Your task to perform on an android device: turn off javascript in the chrome app Image 0: 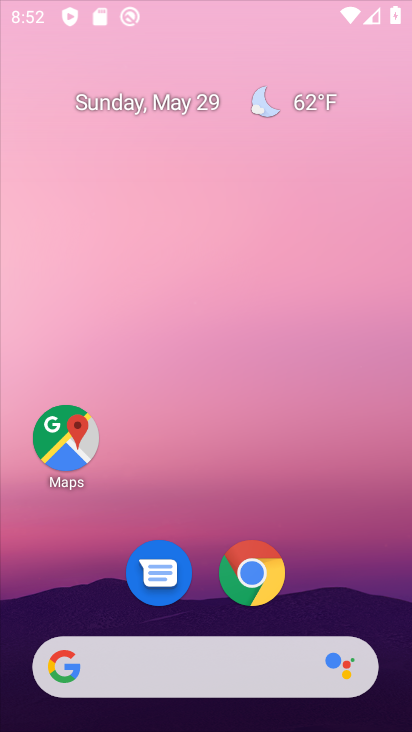
Step 0: press home button
Your task to perform on an android device: turn off javascript in the chrome app Image 1: 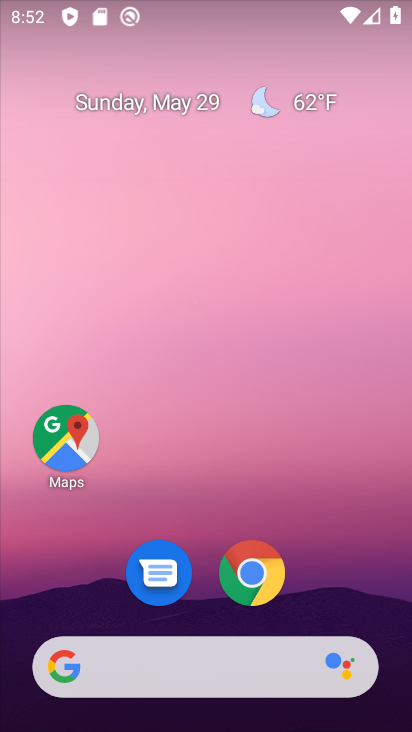
Step 1: click (253, 577)
Your task to perform on an android device: turn off javascript in the chrome app Image 2: 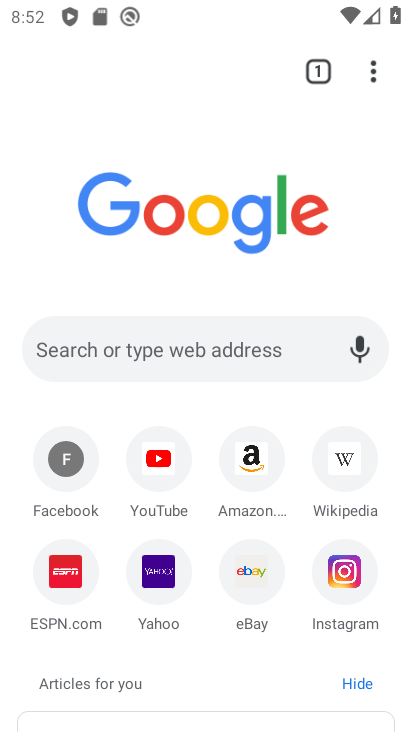
Step 2: drag from (376, 74) to (127, 604)
Your task to perform on an android device: turn off javascript in the chrome app Image 3: 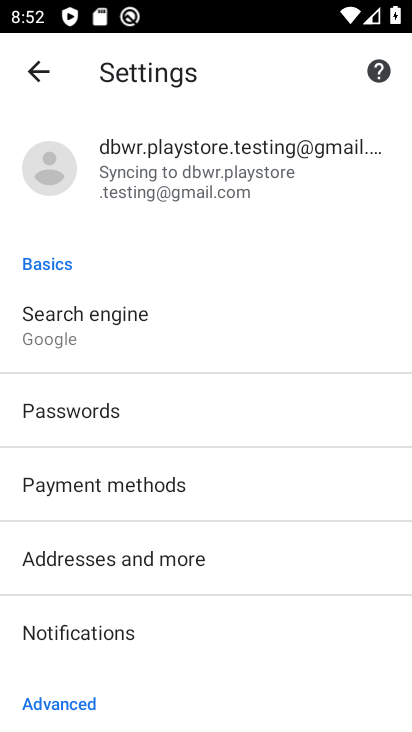
Step 3: drag from (277, 652) to (277, 238)
Your task to perform on an android device: turn off javascript in the chrome app Image 4: 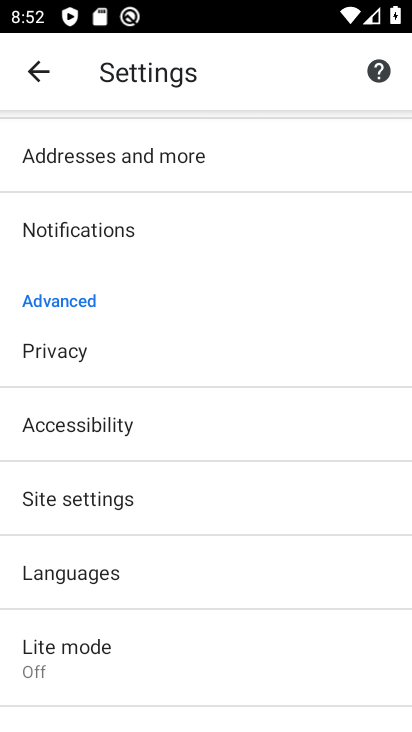
Step 4: click (78, 502)
Your task to perform on an android device: turn off javascript in the chrome app Image 5: 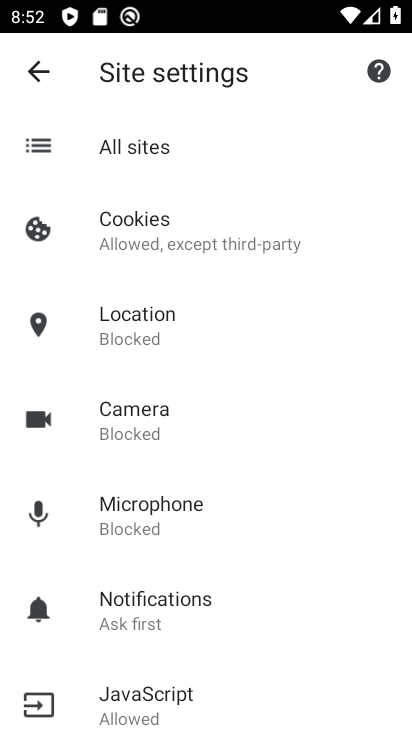
Step 5: click (140, 698)
Your task to perform on an android device: turn off javascript in the chrome app Image 6: 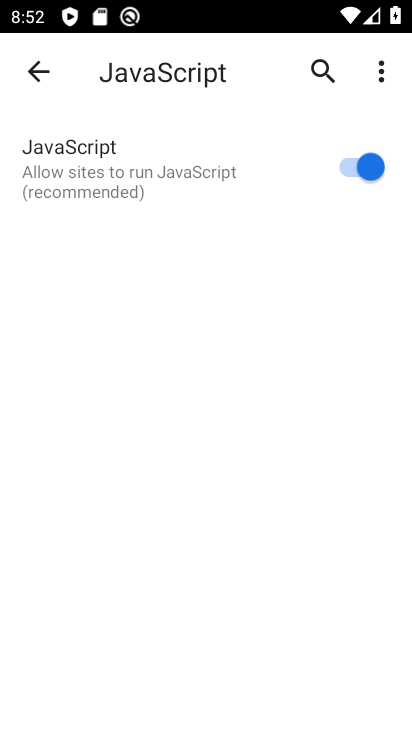
Step 6: click (378, 167)
Your task to perform on an android device: turn off javascript in the chrome app Image 7: 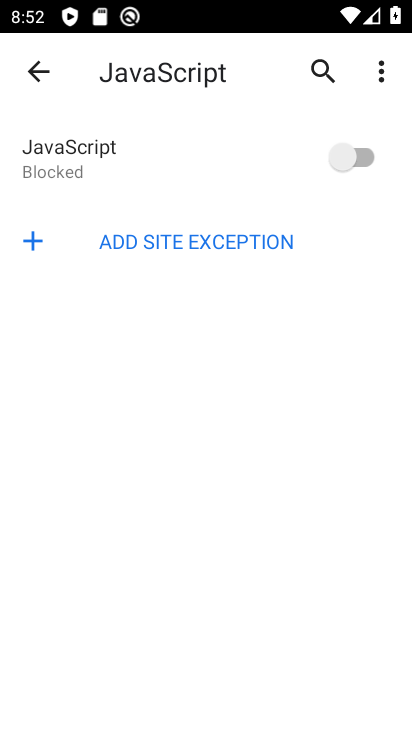
Step 7: task complete